Your task to perform on an android device: Go to network settings Image 0: 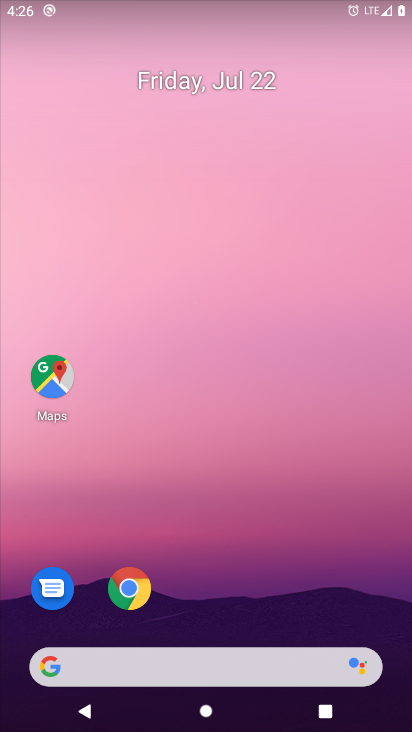
Step 0: drag from (238, 558) to (255, 75)
Your task to perform on an android device: Go to network settings Image 1: 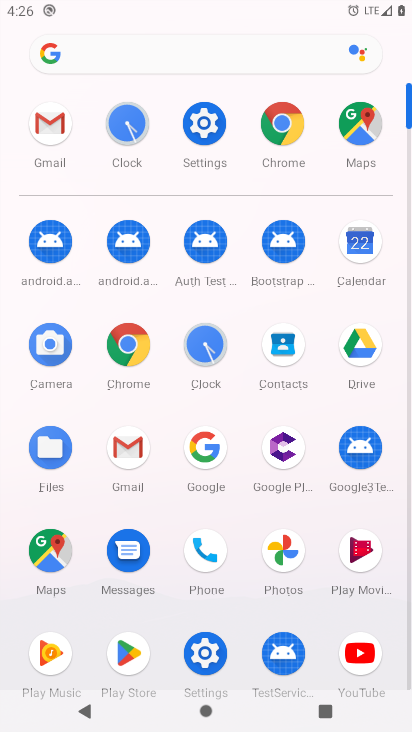
Step 1: click (199, 650)
Your task to perform on an android device: Go to network settings Image 2: 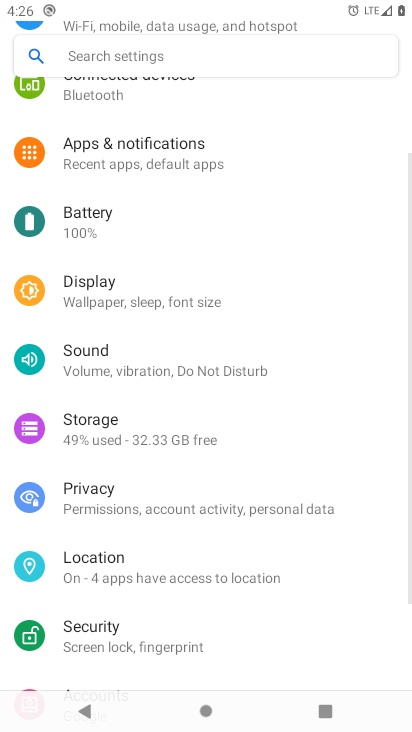
Step 2: drag from (201, 180) to (199, 701)
Your task to perform on an android device: Go to network settings Image 3: 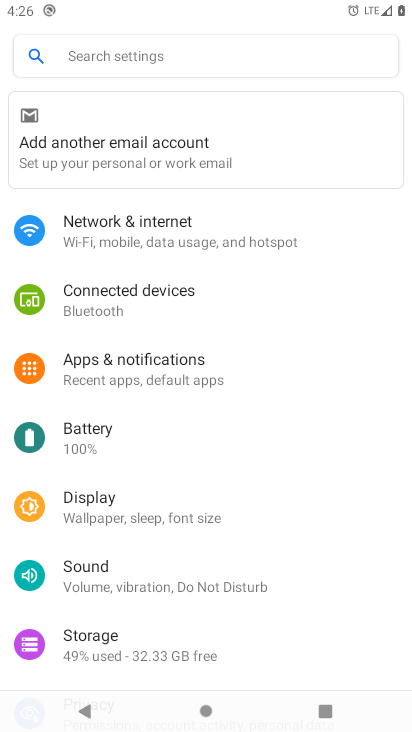
Step 3: click (127, 222)
Your task to perform on an android device: Go to network settings Image 4: 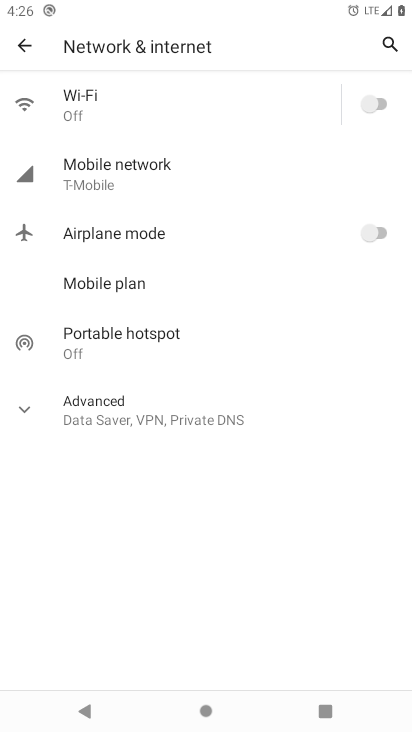
Step 4: task complete